Your task to perform on an android device: Open eBay Image 0: 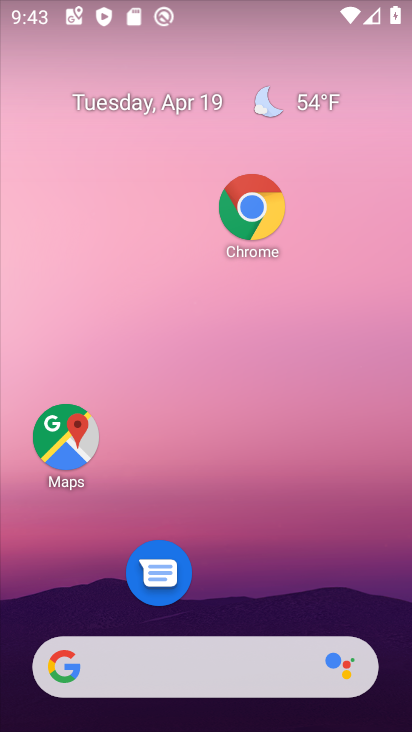
Step 0: drag from (219, 624) to (343, 133)
Your task to perform on an android device: Open eBay Image 1: 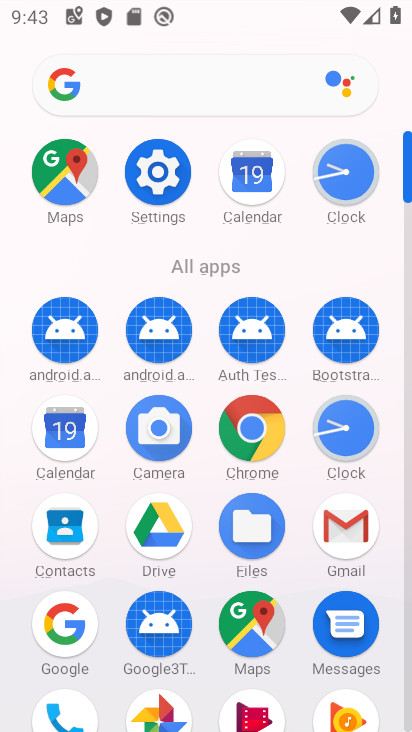
Step 1: drag from (216, 596) to (217, 251)
Your task to perform on an android device: Open eBay Image 2: 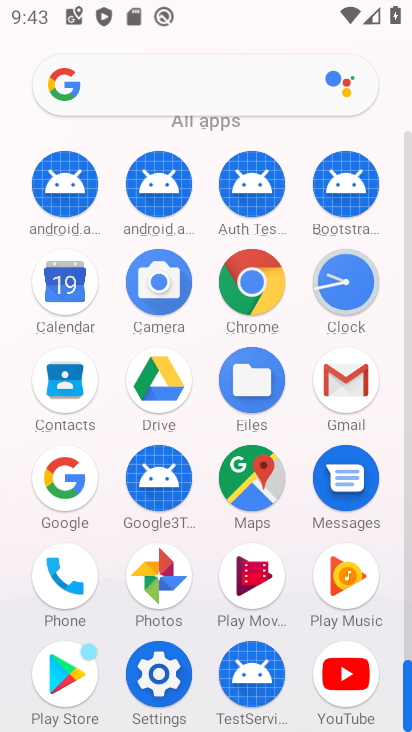
Step 2: click (251, 293)
Your task to perform on an android device: Open eBay Image 3: 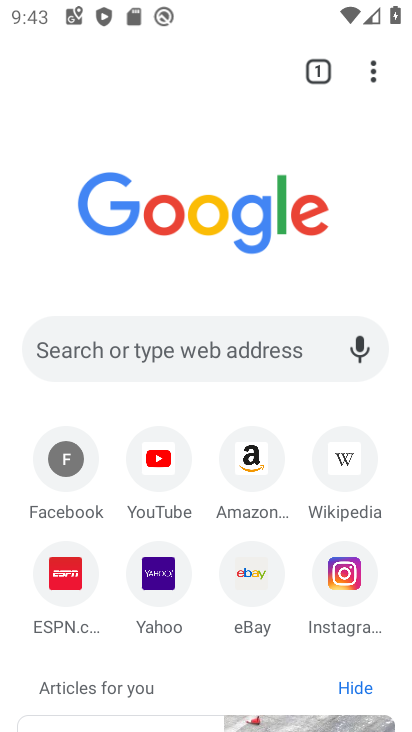
Step 3: click (251, 583)
Your task to perform on an android device: Open eBay Image 4: 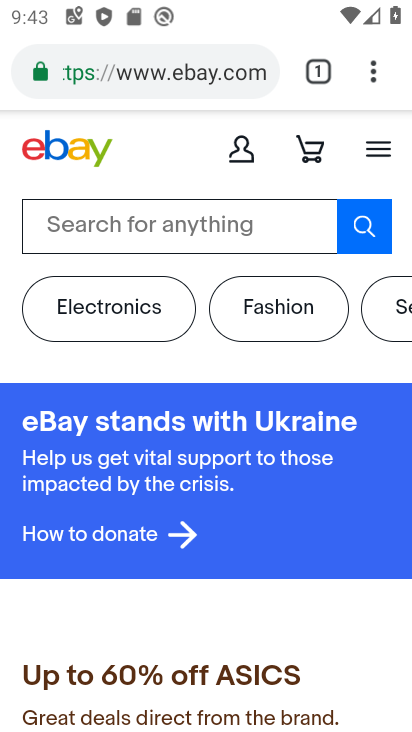
Step 4: task complete